Your task to perform on an android device: set default search engine in the chrome app Image 0: 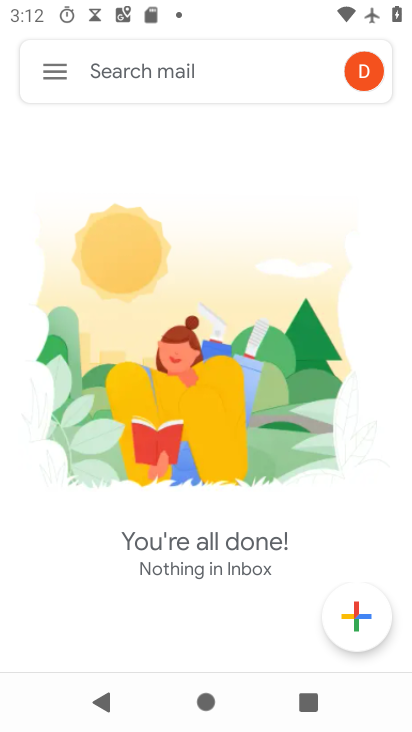
Step 0: press home button
Your task to perform on an android device: set default search engine in the chrome app Image 1: 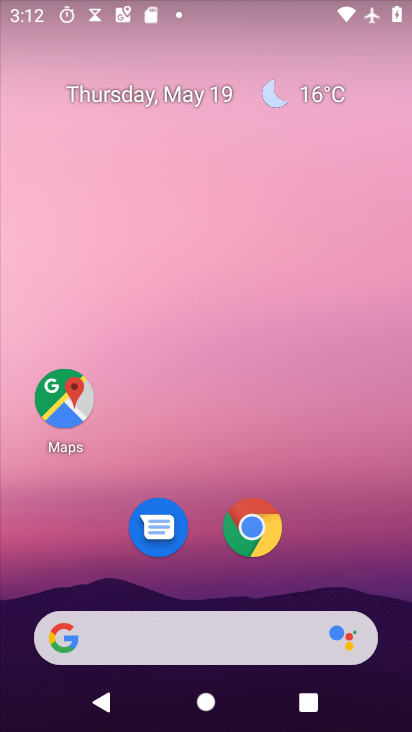
Step 1: click (261, 532)
Your task to perform on an android device: set default search engine in the chrome app Image 2: 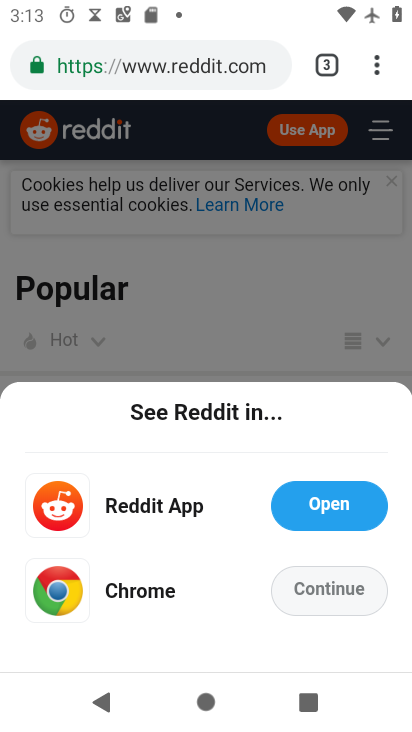
Step 2: click (365, 80)
Your task to perform on an android device: set default search engine in the chrome app Image 3: 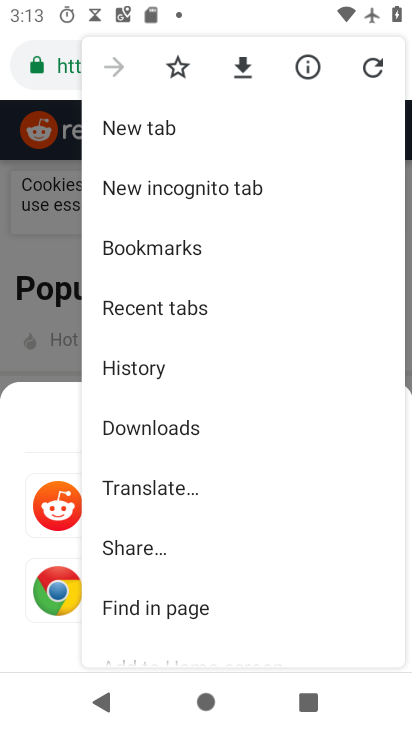
Step 3: drag from (290, 581) to (214, 71)
Your task to perform on an android device: set default search engine in the chrome app Image 4: 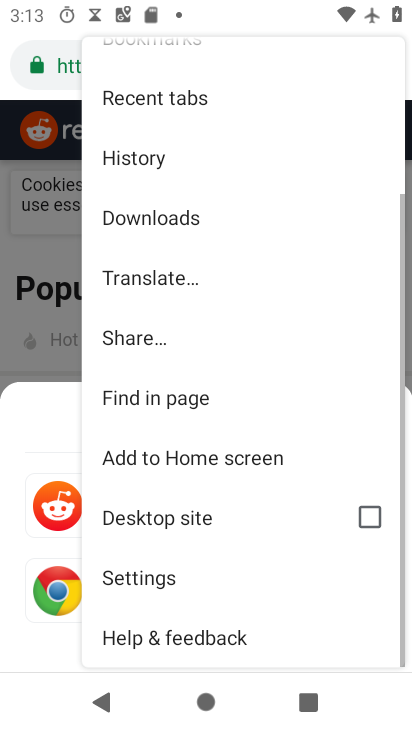
Step 4: click (213, 582)
Your task to perform on an android device: set default search engine in the chrome app Image 5: 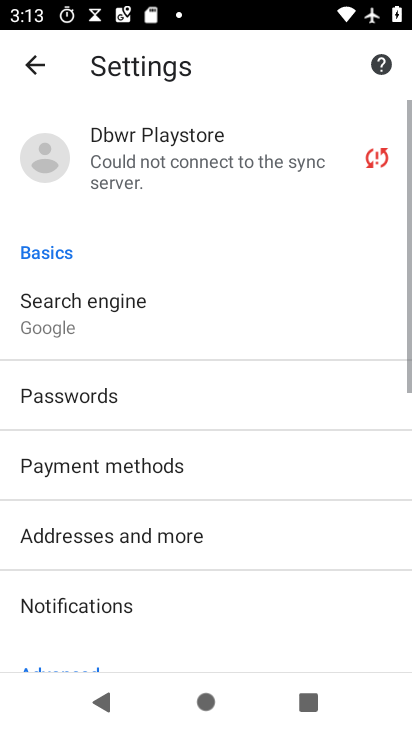
Step 5: click (146, 302)
Your task to perform on an android device: set default search engine in the chrome app Image 6: 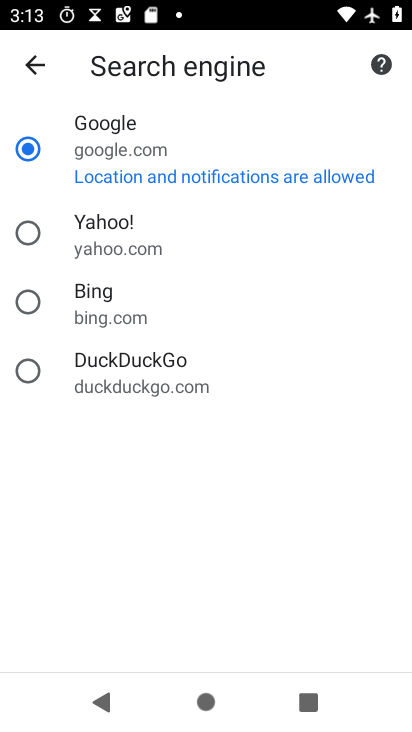
Step 6: click (157, 126)
Your task to perform on an android device: set default search engine in the chrome app Image 7: 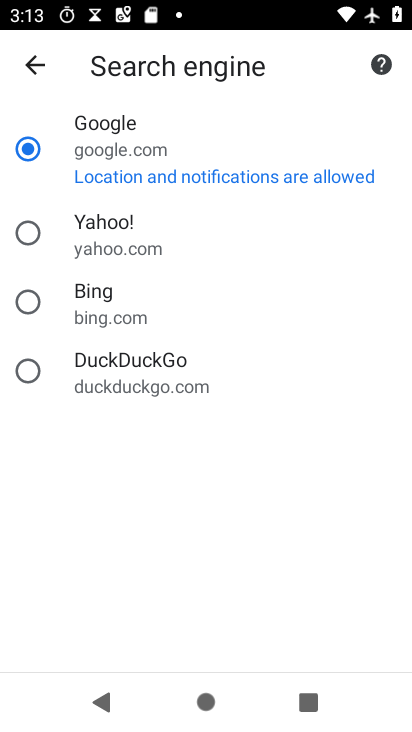
Step 7: task complete